Your task to perform on an android device: Show me the alarms in the clock app Image 0: 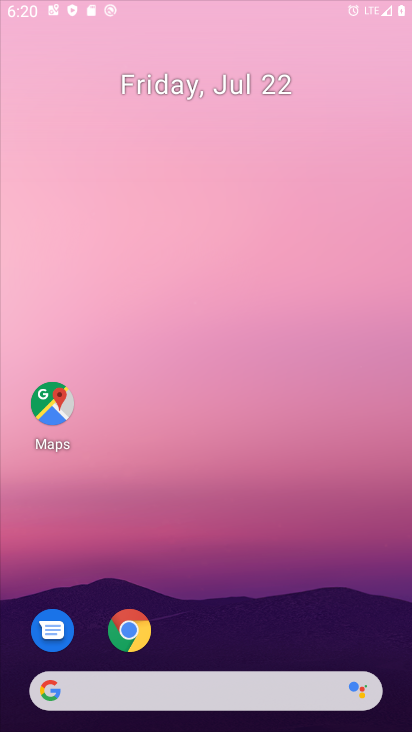
Step 0: drag from (239, 331) to (277, 36)
Your task to perform on an android device: Show me the alarms in the clock app Image 1: 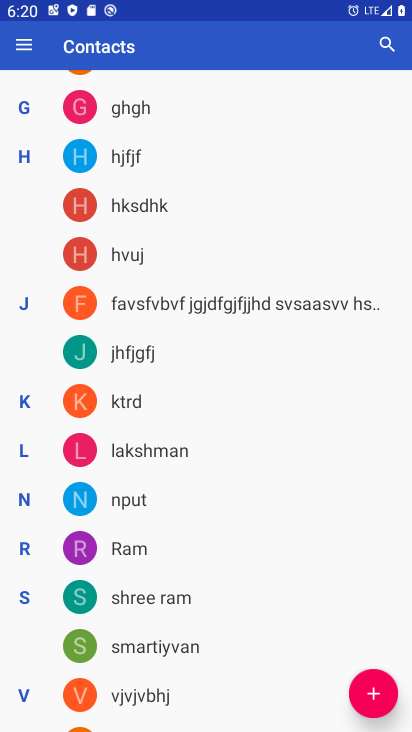
Step 1: press home button
Your task to perform on an android device: Show me the alarms in the clock app Image 2: 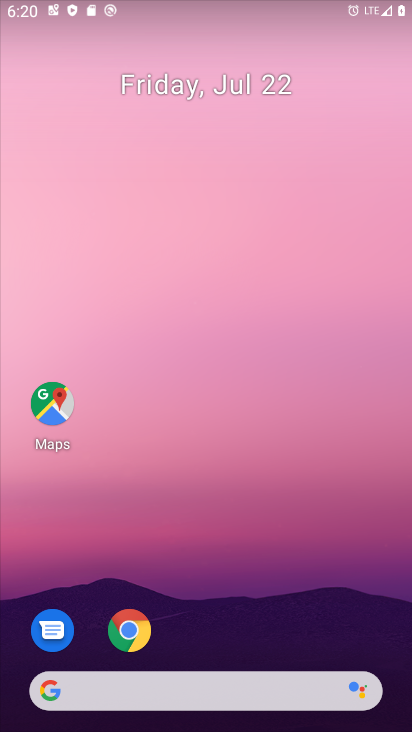
Step 2: drag from (269, 685) to (231, 99)
Your task to perform on an android device: Show me the alarms in the clock app Image 3: 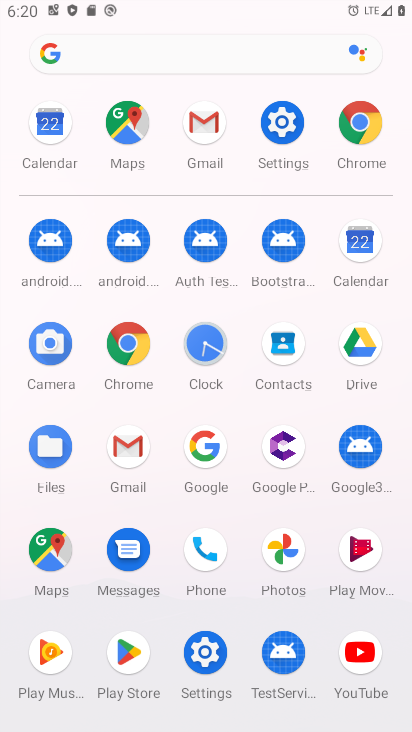
Step 3: click (209, 341)
Your task to perform on an android device: Show me the alarms in the clock app Image 4: 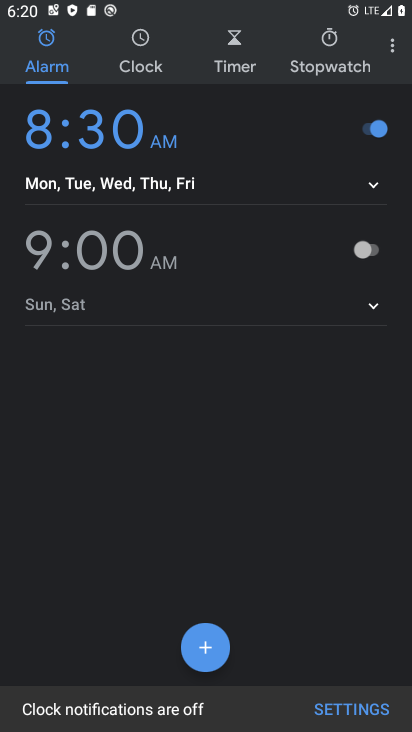
Step 4: task complete